Your task to perform on an android device: open a new tab in the chrome app Image 0: 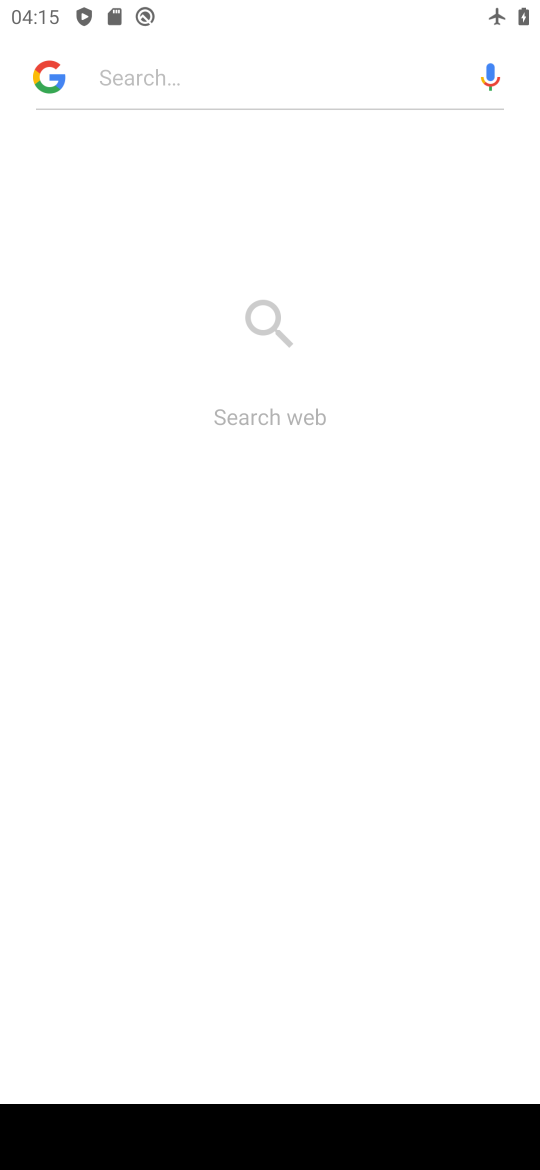
Step 0: task complete